Your task to perform on an android device: turn pop-ups off in chrome Image 0: 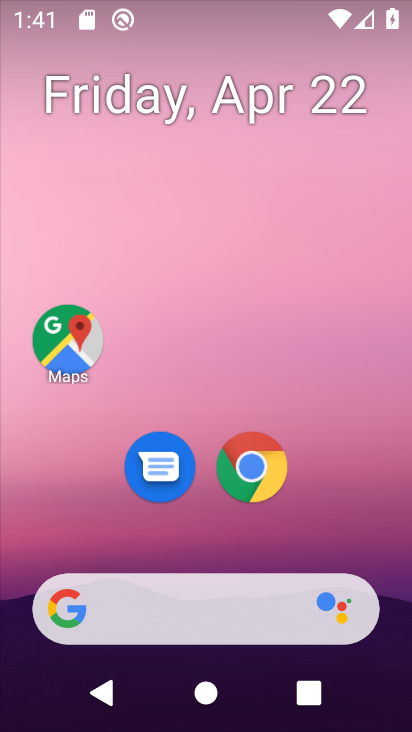
Step 0: click (244, 490)
Your task to perform on an android device: turn pop-ups off in chrome Image 1: 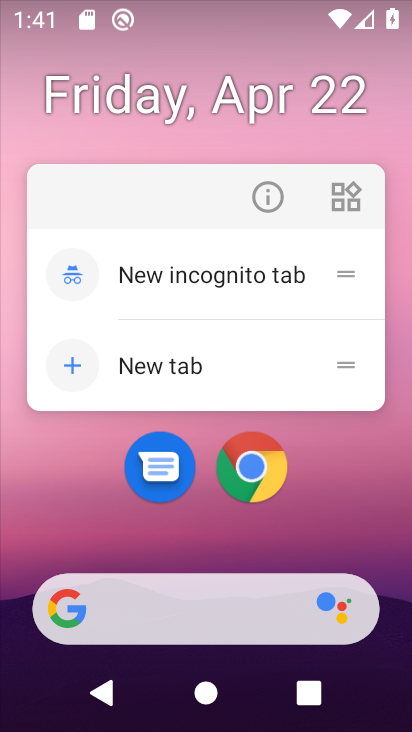
Step 1: click (272, 490)
Your task to perform on an android device: turn pop-ups off in chrome Image 2: 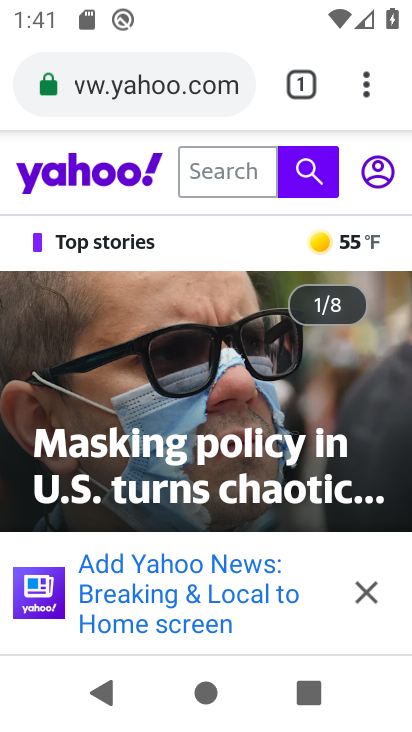
Step 2: drag from (373, 85) to (226, 508)
Your task to perform on an android device: turn pop-ups off in chrome Image 3: 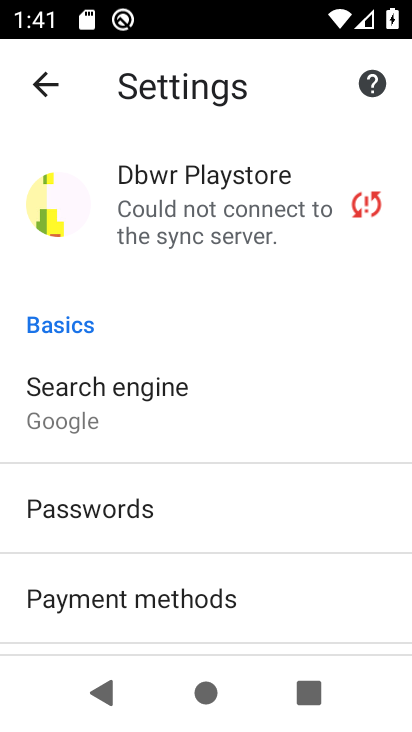
Step 3: drag from (279, 584) to (288, 235)
Your task to perform on an android device: turn pop-ups off in chrome Image 4: 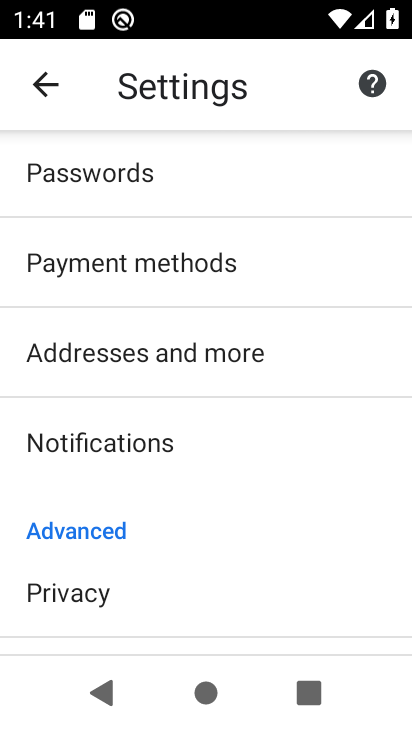
Step 4: drag from (203, 555) to (227, 254)
Your task to perform on an android device: turn pop-ups off in chrome Image 5: 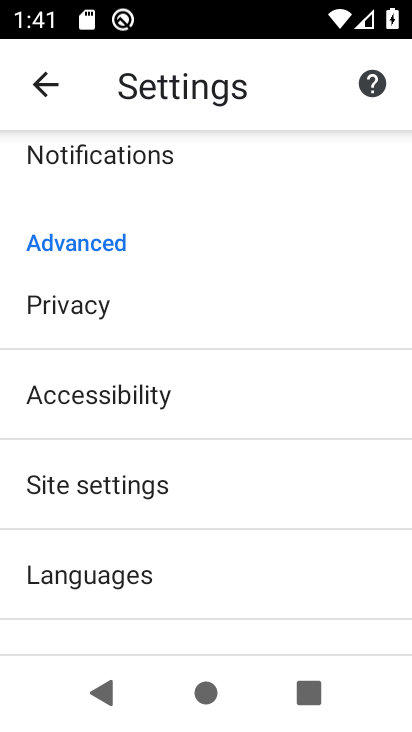
Step 5: click (106, 506)
Your task to perform on an android device: turn pop-ups off in chrome Image 6: 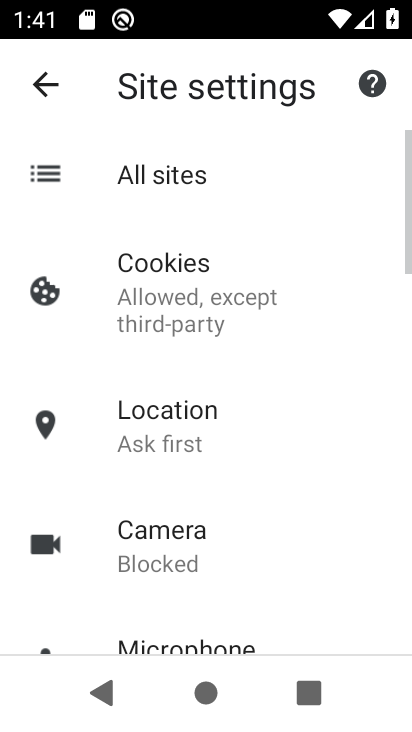
Step 6: drag from (170, 588) to (232, 361)
Your task to perform on an android device: turn pop-ups off in chrome Image 7: 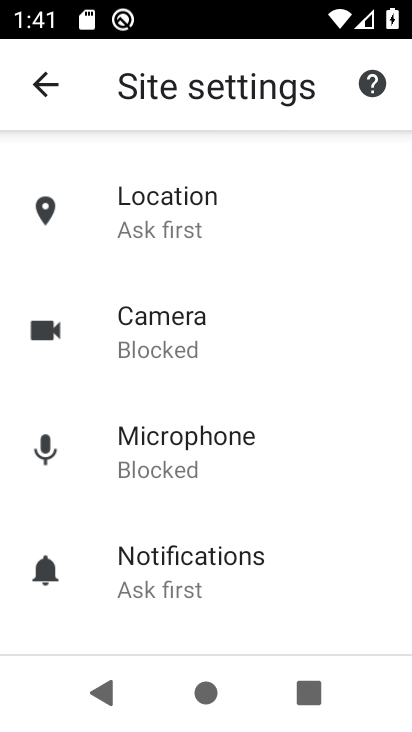
Step 7: drag from (259, 611) to (285, 257)
Your task to perform on an android device: turn pop-ups off in chrome Image 8: 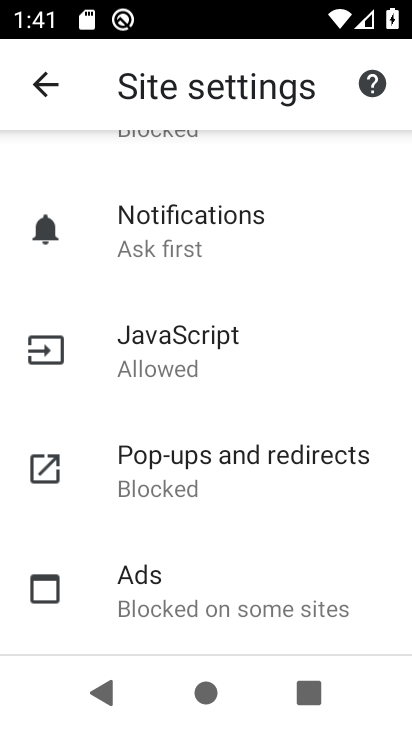
Step 8: click (259, 487)
Your task to perform on an android device: turn pop-ups off in chrome Image 9: 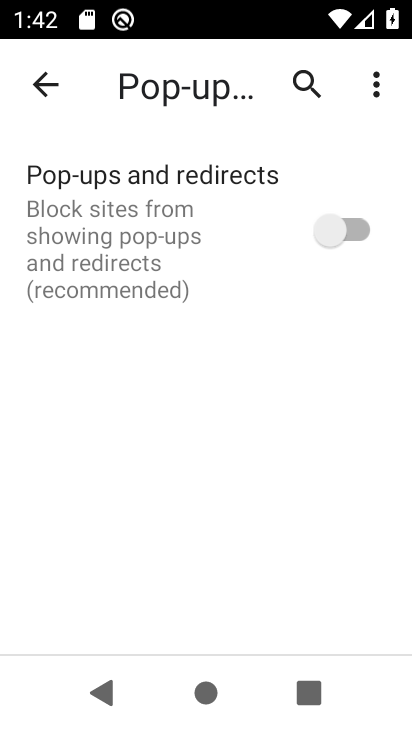
Step 9: task complete